Your task to perform on an android device: read, delete, or share a saved page in the chrome app Image 0: 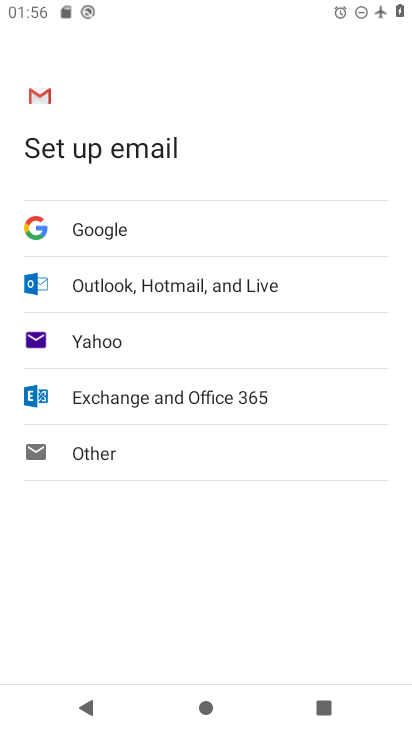
Step 0: press home button
Your task to perform on an android device: read, delete, or share a saved page in the chrome app Image 1: 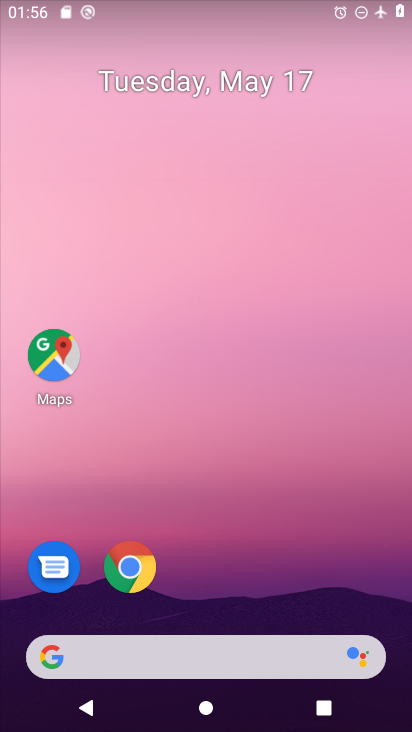
Step 1: drag from (296, 419) to (173, 62)
Your task to perform on an android device: read, delete, or share a saved page in the chrome app Image 2: 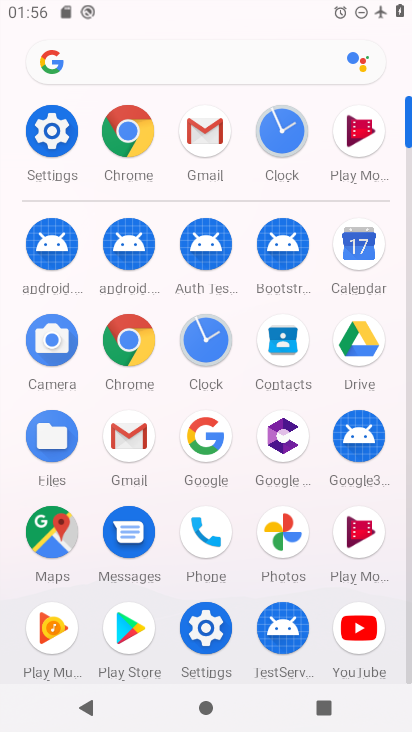
Step 2: click (126, 342)
Your task to perform on an android device: read, delete, or share a saved page in the chrome app Image 3: 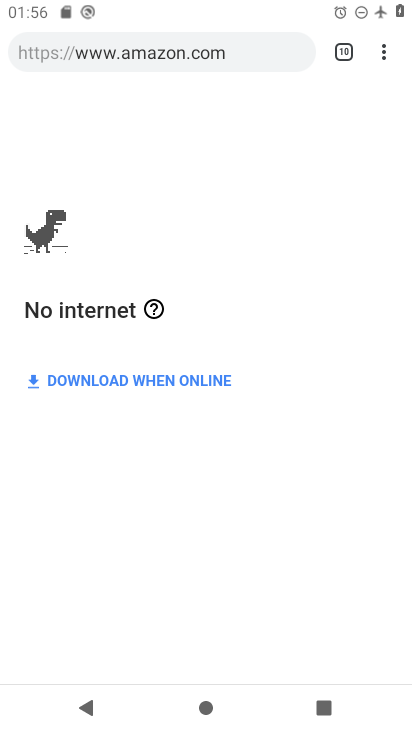
Step 3: click (381, 51)
Your task to perform on an android device: read, delete, or share a saved page in the chrome app Image 4: 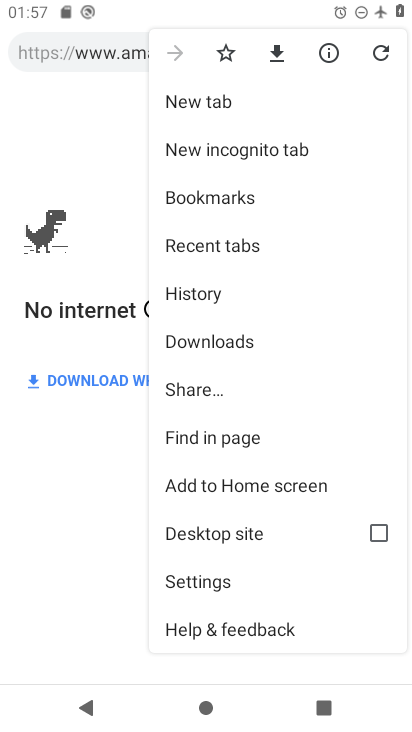
Step 4: click (190, 336)
Your task to perform on an android device: read, delete, or share a saved page in the chrome app Image 5: 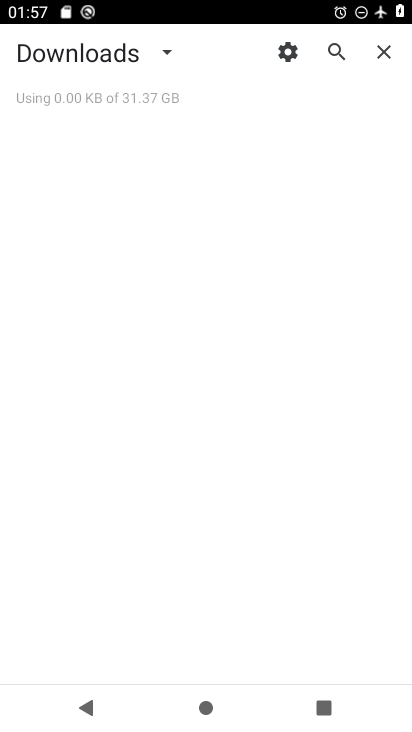
Step 5: task complete